Your task to perform on an android device: Open Google Chrome and click the shortcut for Amazon.com Image 0: 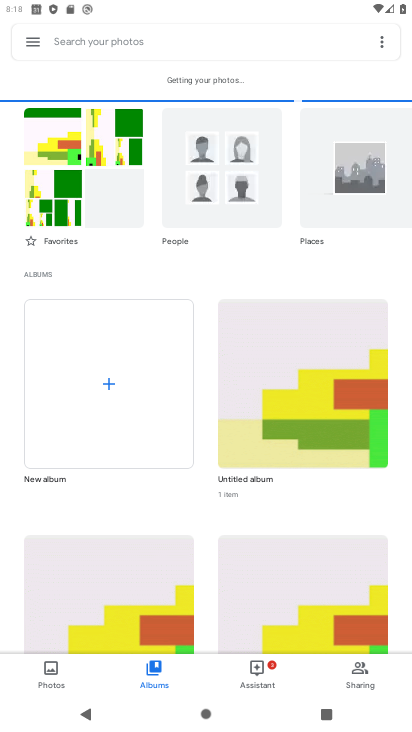
Step 0: press home button
Your task to perform on an android device: Open Google Chrome and click the shortcut for Amazon.com Image 1: 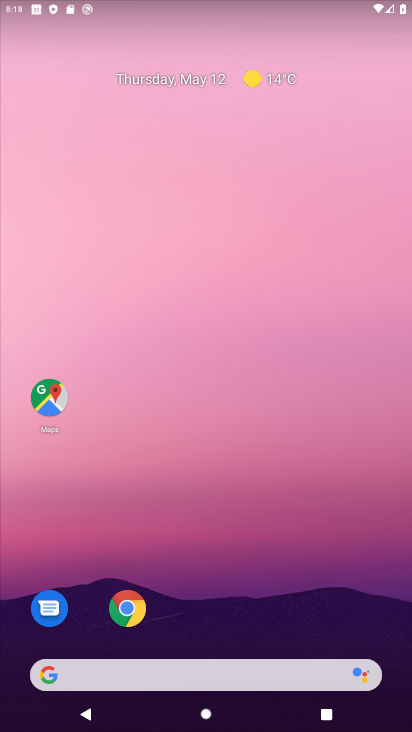
Step 1: drag from (179, 559) to (180, 250)
Your task to perform on an android device: Open Google Chrome and click the shortcut for Amazon.com Image 2: 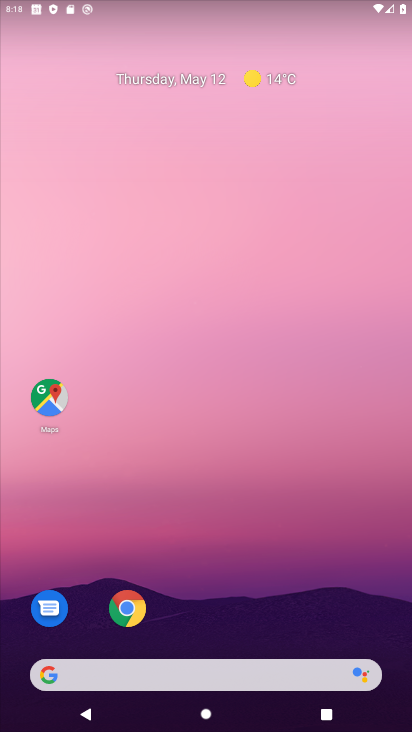
Step 2: drag from (167, 654) to (114, 163)
Your task to perform on an android device: Open Google Chrome and click the shortcut for Amazon.com Image 3: 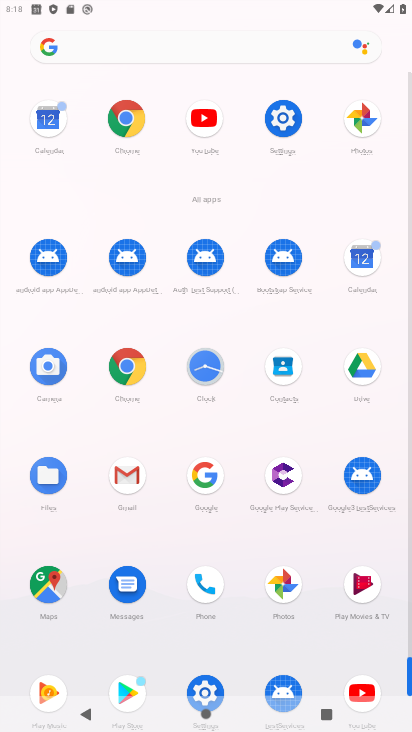
Step 3: click (126, 367)
Your task to perform on an android device: Open Google Chrome and click the shortcut for Amazon.com Image 4: 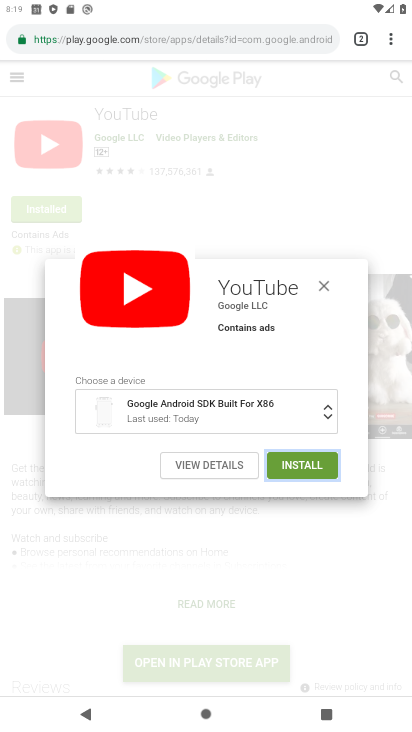
Step 4: click (319, 285)
Your task to perform on an android device: Open Google Chrome and click the shortcut for Amazon.com Image 5: 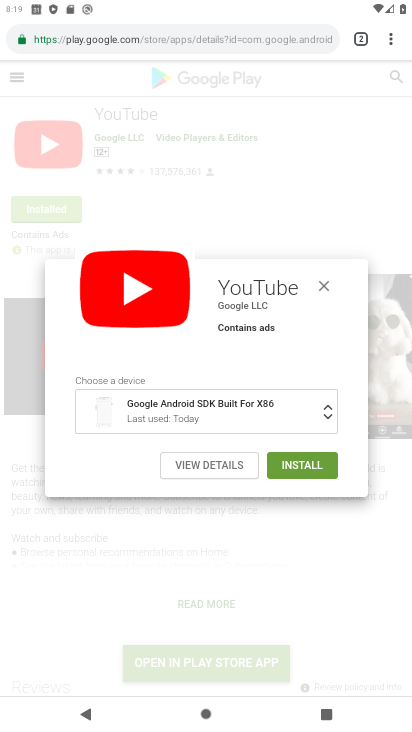
Step 5: click (365, 41)
Your task to perform on an android device: Open Google Chrome and click the shortcut for Amazon.com Image 6: 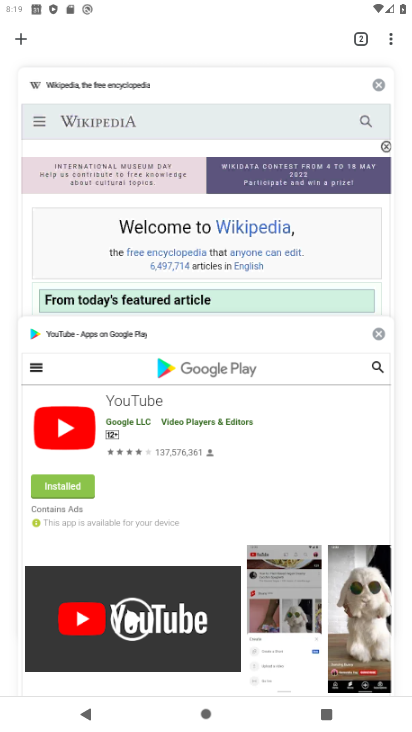
Step 6: click (377, 74)
Your task to perform on an android device: Open Google Chrome and click the shortcut for Amazon.com Image 7: 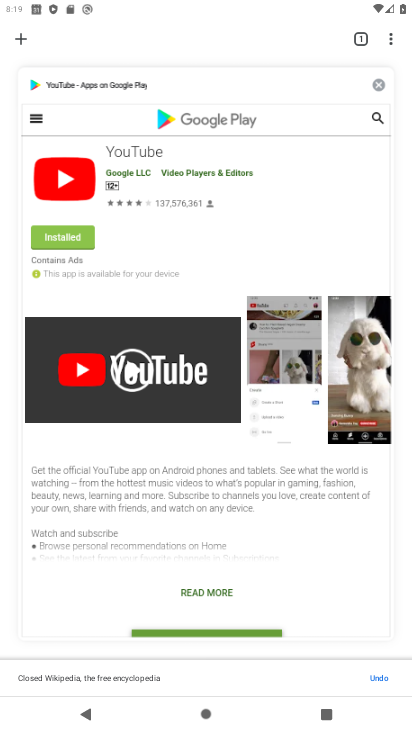
Step 7: click (376, 84)
Your task to perform on an android device: Open Google Chrome and click the shortcut for Amazon.com Image 8: 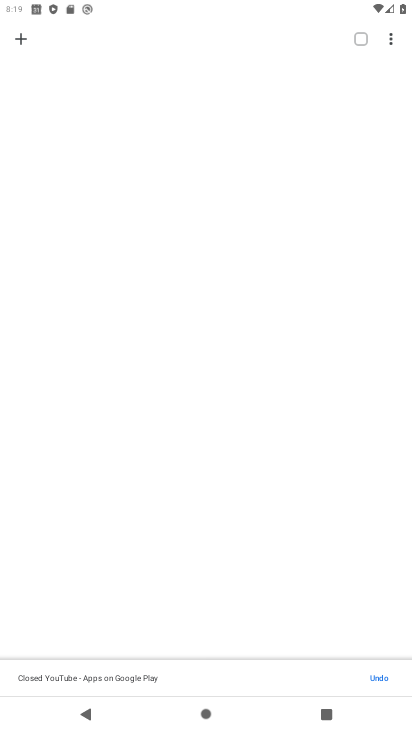
Step 8: click (17, 34)
Your task to perform on an android device: Open Google Chrome and click the shortcut for Amazon.com Image 9: 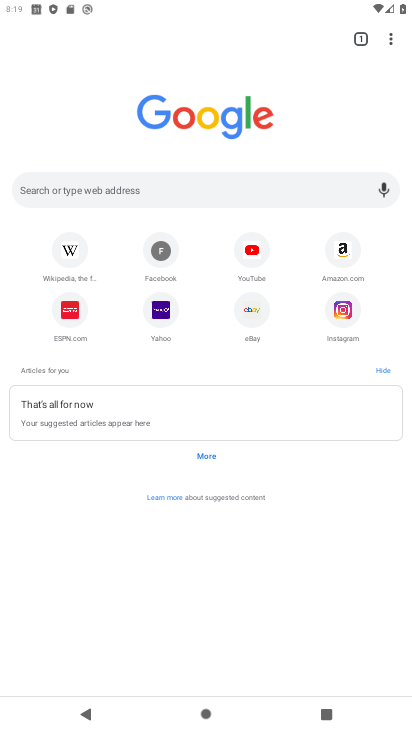
Step 9: click (71, 248)
Your task to perform on an android device: Open Google Chrome and click the shortcut for Amazon.com Image 10: 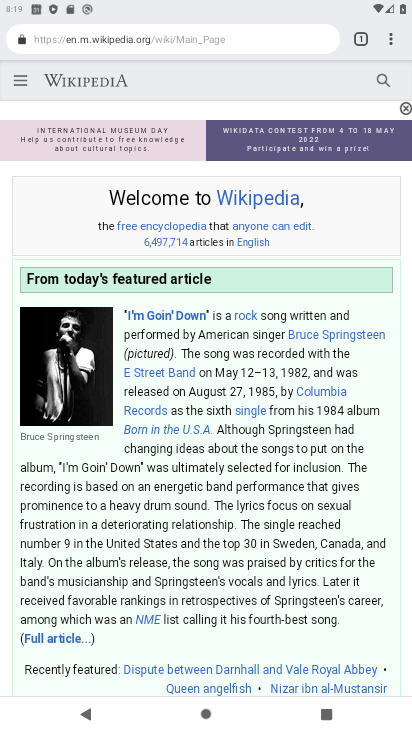
Step 10: click (361, 35)
Your task to perform on an android device: Open Google Chrome and click the shortcut for Amazon.com Image 11: 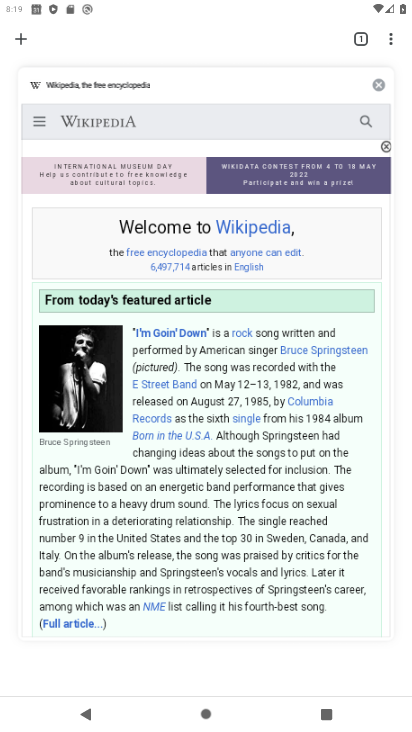
Step 11: click (22, 38)
Your task to perform on an android device: Open Google Chrome and click the shortcut for Amazon.com Image 12: 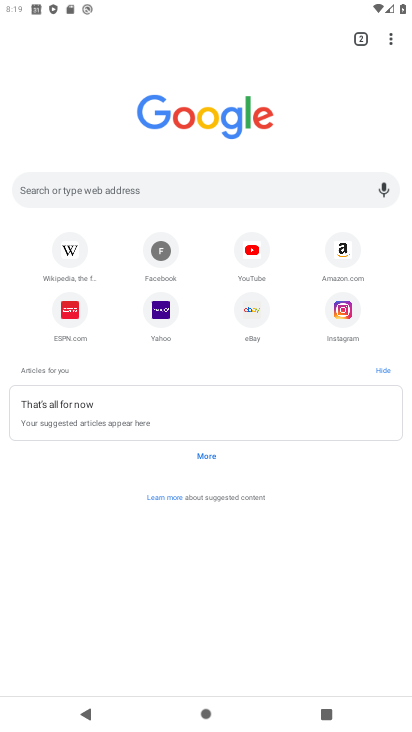
Step 12: click (350, 252)
Your task to perform on an android device: Open Google Chrome and click the shortcut for Amazon.com Image 13: 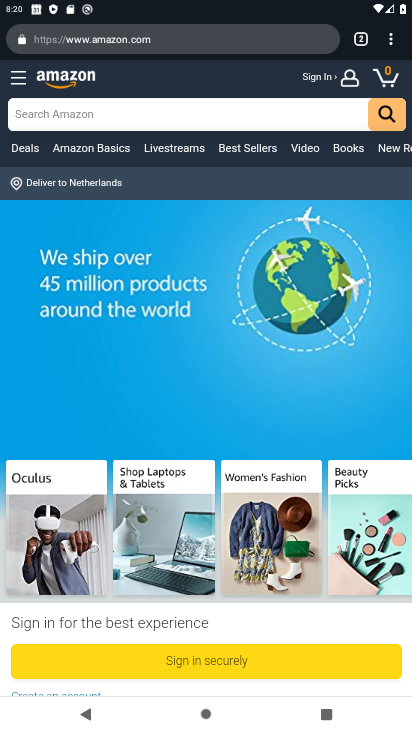
Step 13: task complete